Your task to perform on an android device: Show me recent news Image 0: 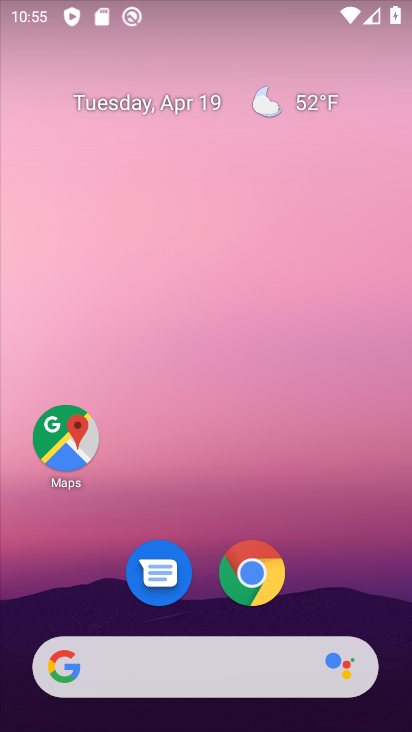
Step 0: drag from (5, 319) to (409, 327)
Your task to perform on an android device: Show me recent news Image 1: 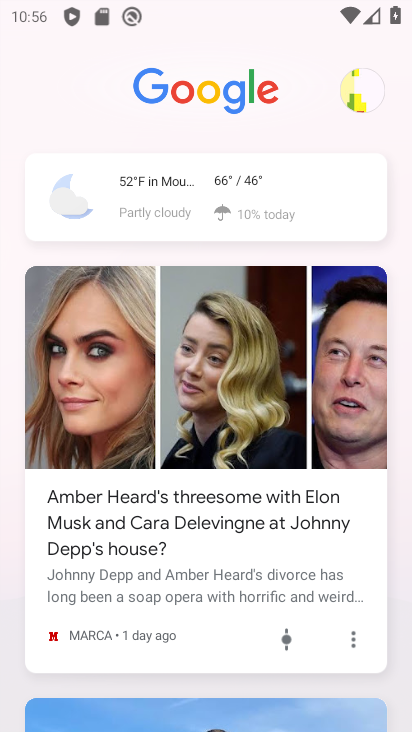
Step 1: task complete